Your task to perform on an android device: turn on the 24-hour format for clock Image 0: 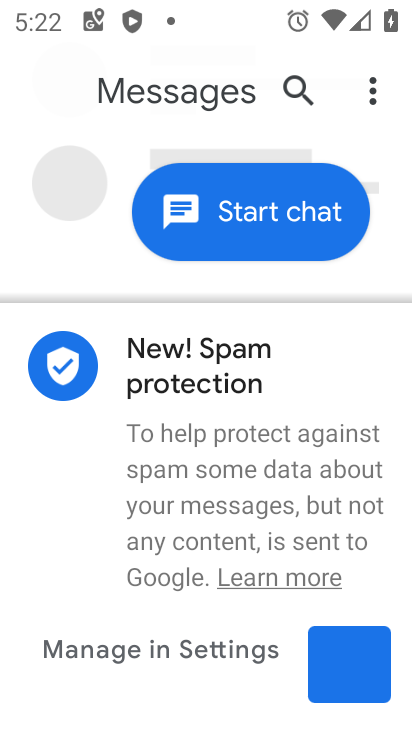
Step 0: press home button
Your task to perform on an android device: turn on the 24-hour format for clock Image 1: 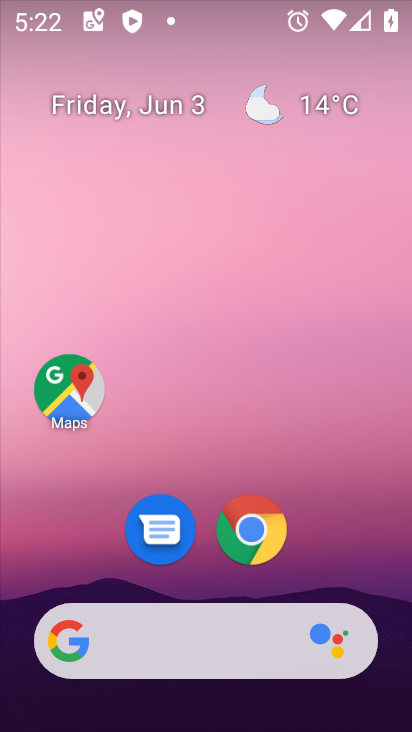
Step 1: drag from (208, 574) to (228, 57)
Your task to perform on an android device: turn on the 24-hour format for clock Image 2: 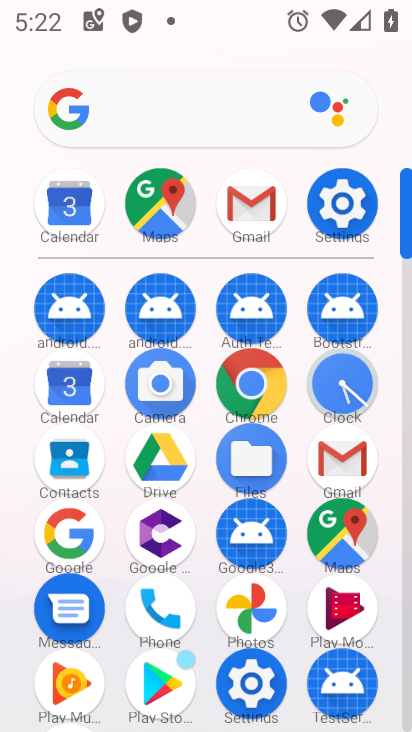
Step 2: click (345, 374)
Your task to perform on an android device: turn on the 24-hour format for clock Image 3: 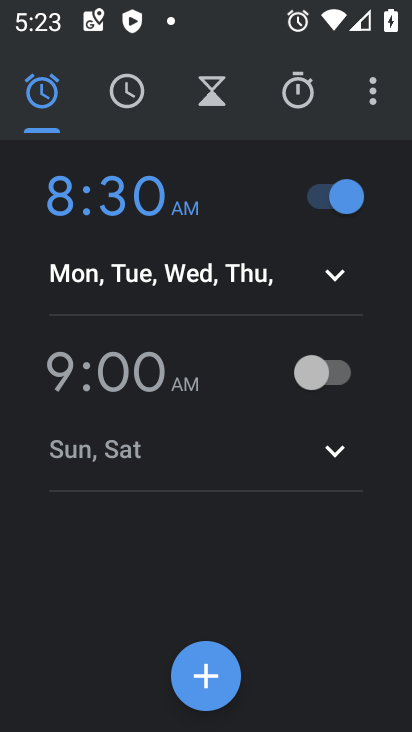
Step 3: click (372, 84)
Your task to perform on an android device: turn on the 24-hour format for clock Image 4: 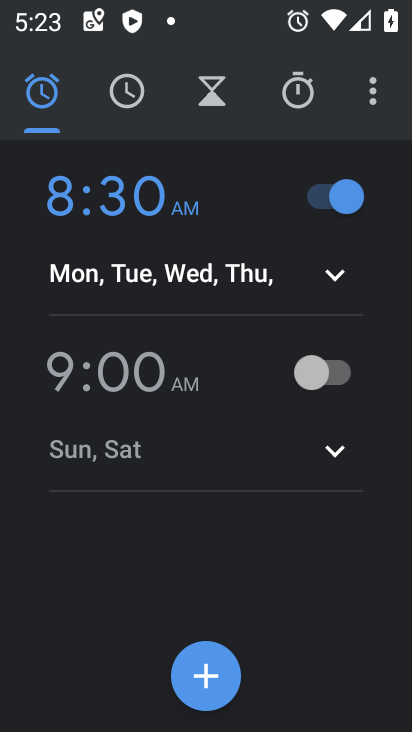
Step 4: click (377, 85)
Your task to perform on an android device: turn on the 24-hour format for clock Image 5: 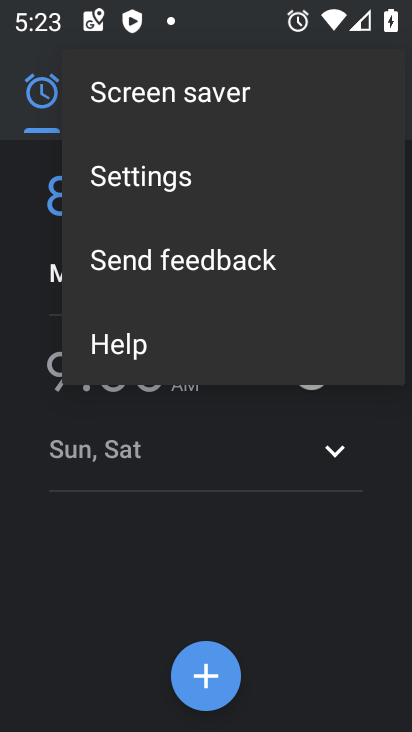
Step 5: click (175, 191)
Your task to perform on an android device: turn on the 24-hour format for clock Image 6: 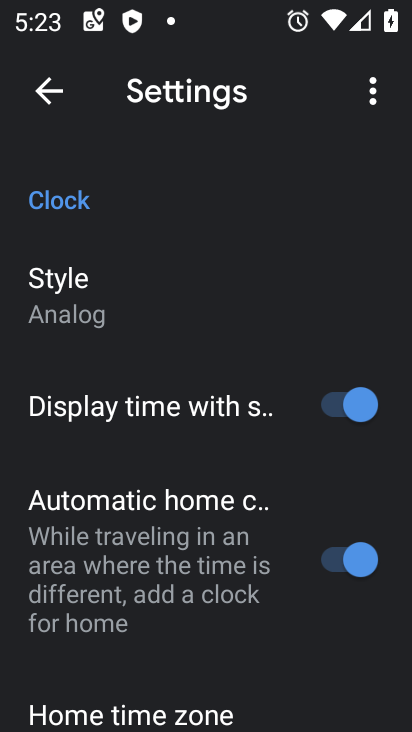
Step 6: drag from (237, 671) to (277, 143)
Your task to perform on an android device: turn on the 24-hour format for clock Image 7: 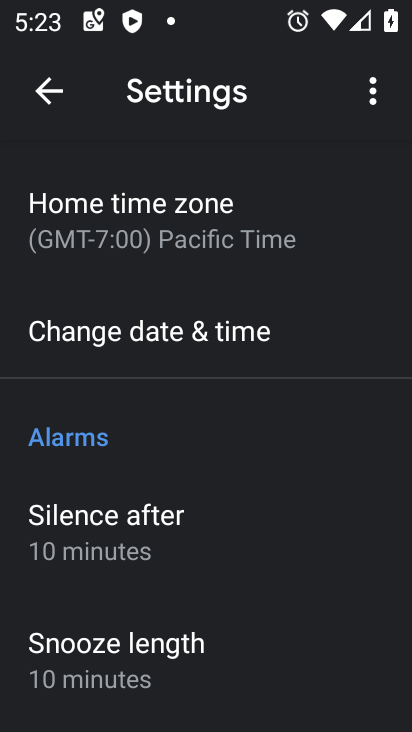
Step 7: click (223, 349)
Your task to perform on an android device: turn on the 24-hour format for clock Image 8: 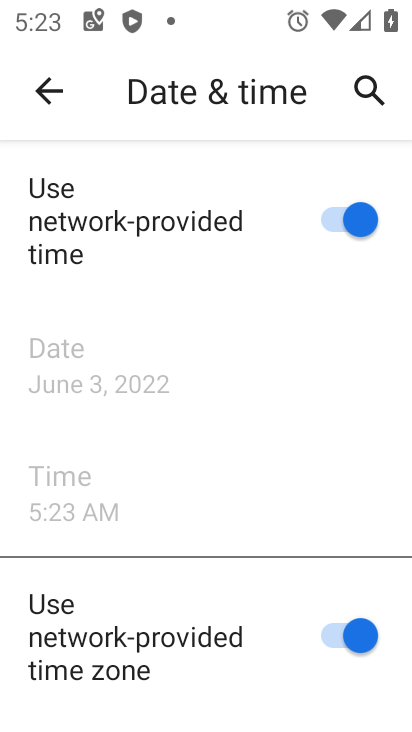
Step 8: drag from (256, 602) to (267, 117)
Your task to perform on an android device: turn on the 24-hour format for clock Image 9: 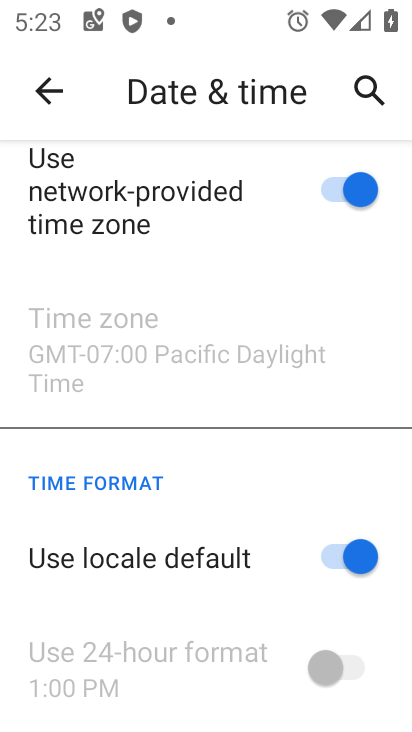
Step 9: click (347, 550)
Your task to perform on an android device: turn on the 24-hour format for clock Image 10: 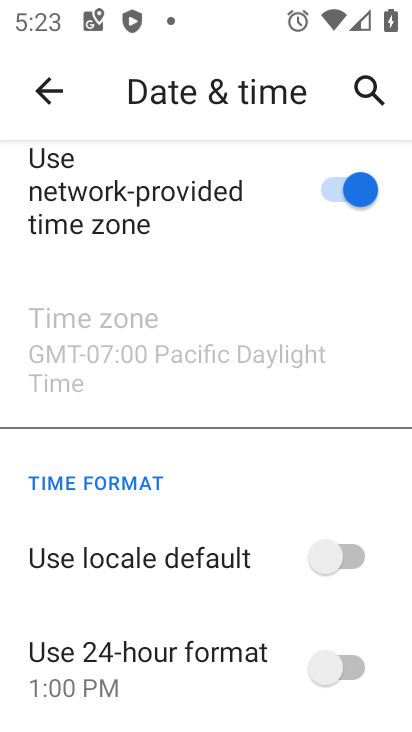
Step 10: click (345, 665)
Your task to perform on an android device: turn on the 24-hour format for clock Image 11: 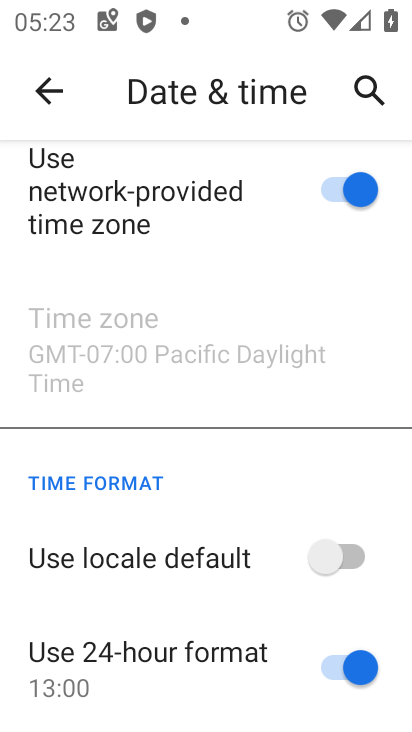
Step 11: task complete